Your task to perform on an android device: Open calendar and show me the fourth week of next month Image 0: 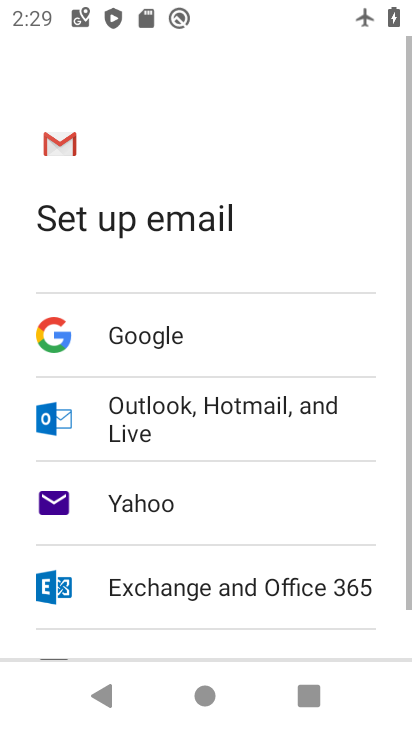
Step 0: press home button
Your task to perform on an android device: Open calendar and show me the fourth week of next month Image 1: 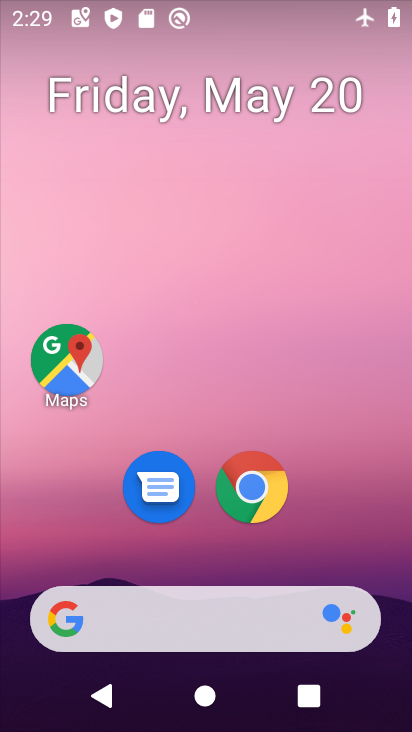
Step 1: drag from (344, 442) to (358, 18)
Your task to perform on an android device: Open calendar and show me the fourth week of next month Image 2: 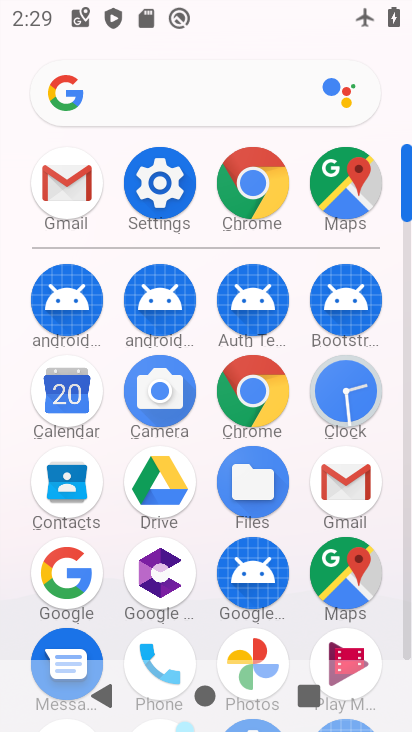
Step 2: click (81, 413)
Your task to perform on an android device: Open calendar and show me the fourth week of next month Image 3: 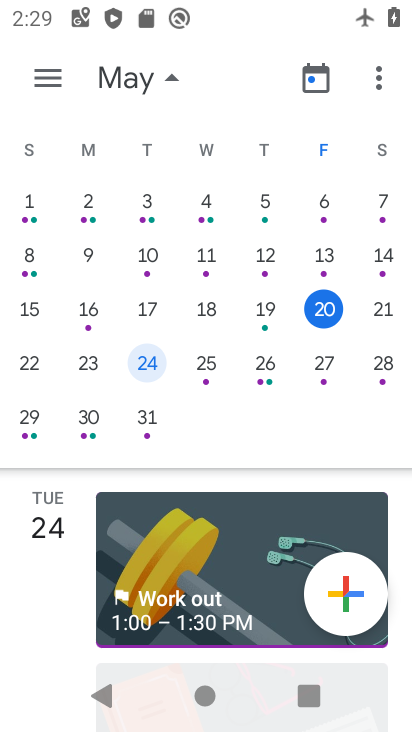
Step 3: drag from (360, 362) to (19, 388)
Your task to perform on an android device: Open calendar and show me the fourth week of next month Image 4: 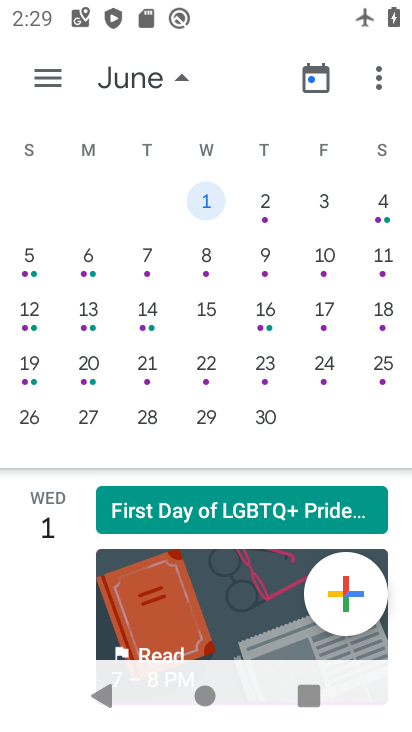
Step 4: click (147, 420)
Your task to perform on an android device: Open calendar and show me the fourth week of next month Image 5: 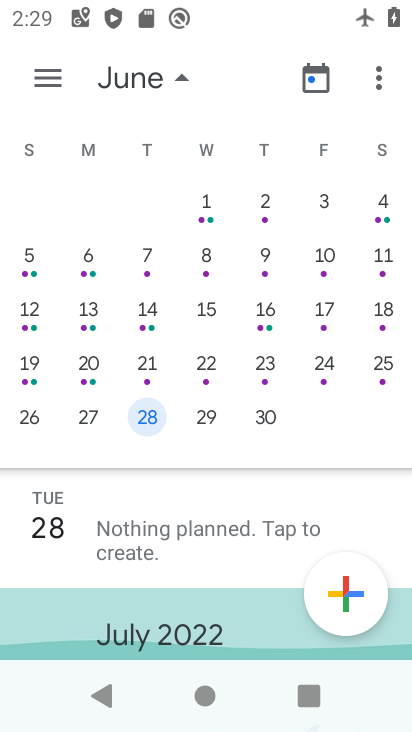
Step 5: task complete